Your task to perform on an android device: Open calendar and show me the first week of next month Image 0: 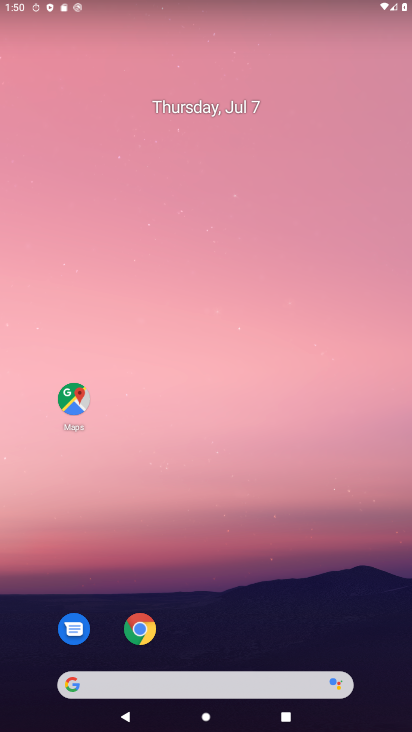
Step 0: drag from (390, 590) to (368, 45)
Your task to perform on an android device: Open calendar and show me the first week of next month Image 1: 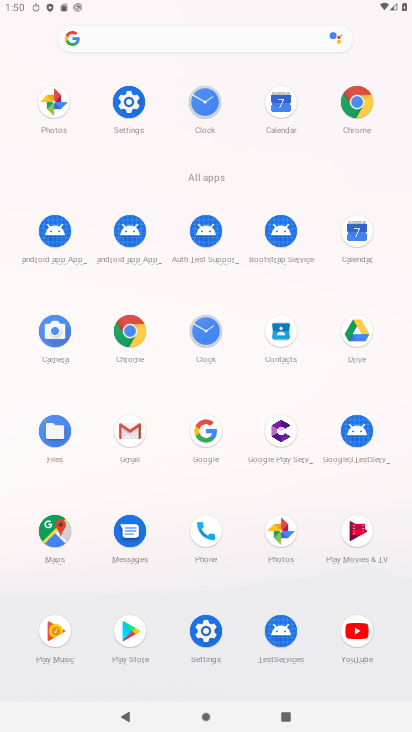
Step 1: click (377, 225)
Your task to perform on an android device: Open calendar and show me the first week of next month Image 2: 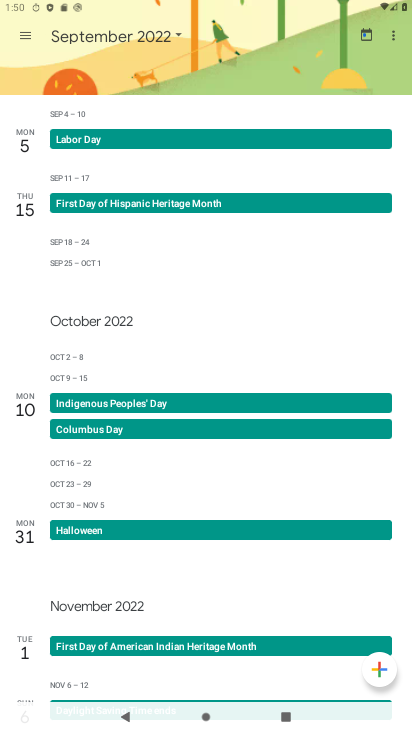
Step 2: click (176, 27)
Your task to perform on an android device: Open calendar and show me the first week of next month Image 3: 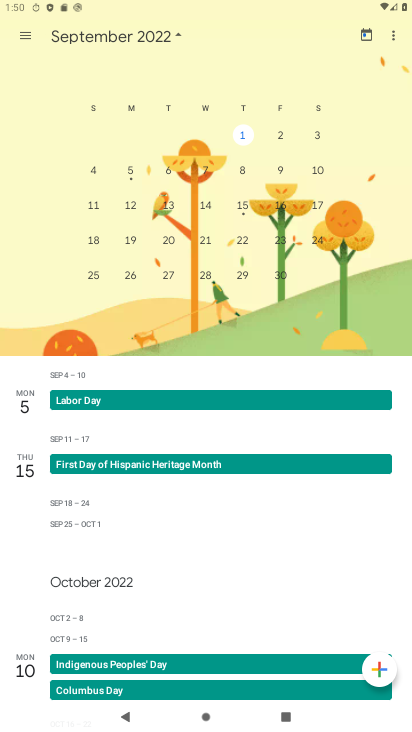
Step 3: drag from (313, 238) to (1, 192)
Your task to perform on an android device: Open calendar and show me the first week of next month Image 4: 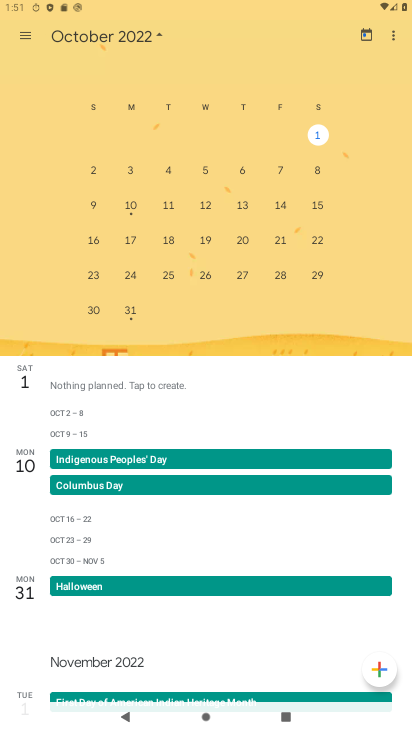
Step 4: drag from (21, 232) to (375, 141)
Your task to perform on an android device: Open calendar and show me the first week of next month Image 5: 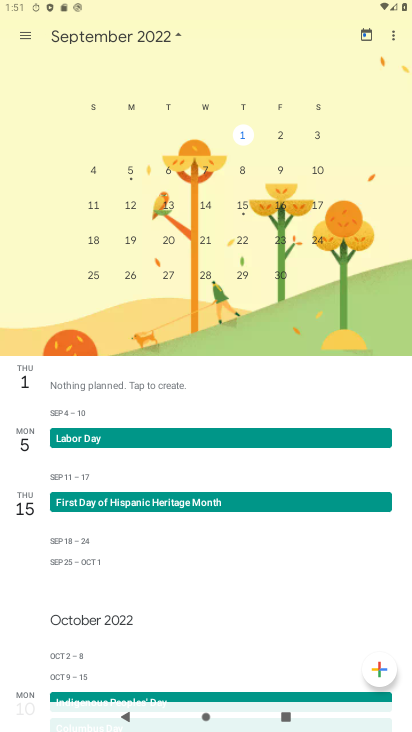
Step 5: drag from (31, 189) to (375, 156)
Your task to perform on an android device: Open calendar and show me the first week of next month Image 6: 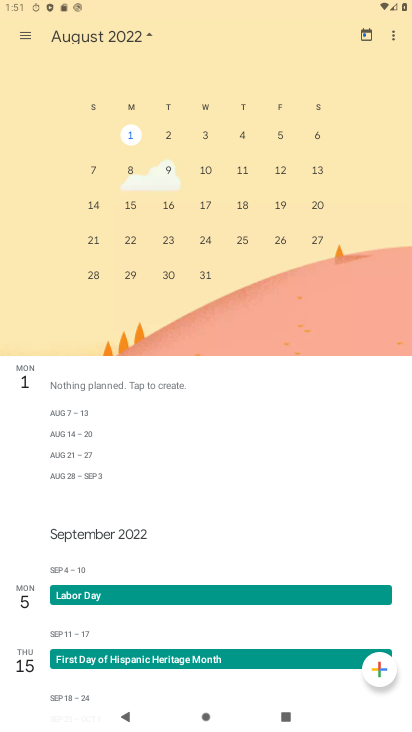
Step 6: click (141, 137)
Your task to perform on an android device: Open calendar and show me the first week of next month Image 7: 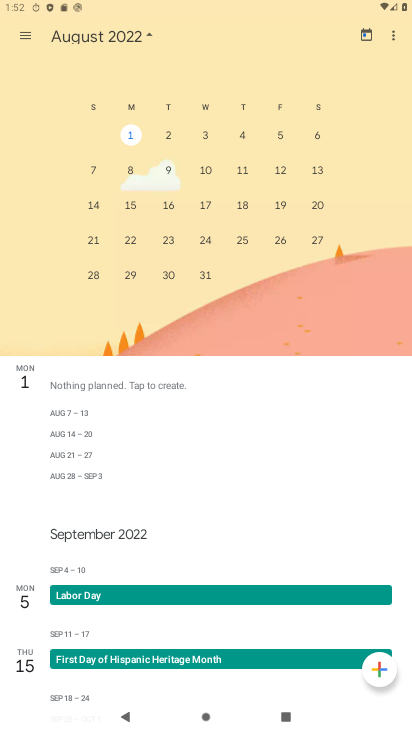
Step 7: click (148, 280)
Your task to perform on an android device: Open calendar and show me the first week of next month Image 8: 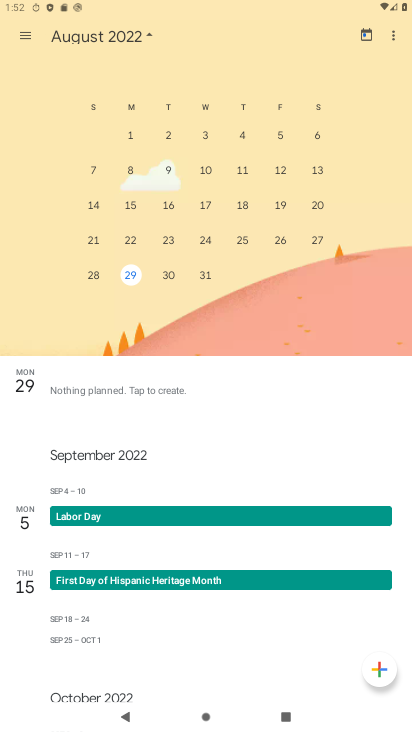
Step 8: click (127, 137)
Your task to perform on an android device: Open calendar and show me the first week of next month Image 9: 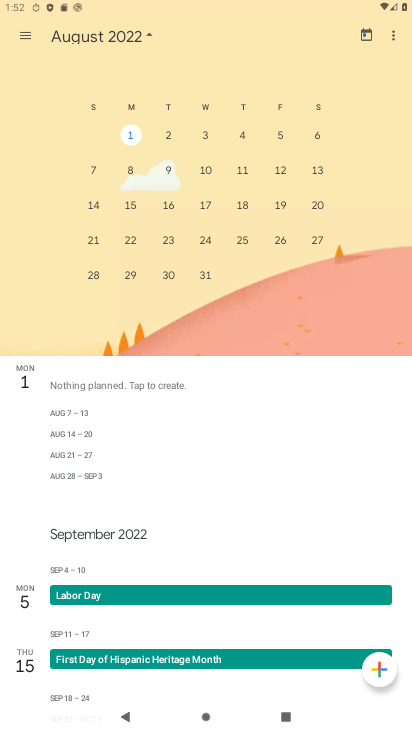
Step 9: task complete